Your task to perform on an android device: allow notifications from all sites in the chrome app Image 0: 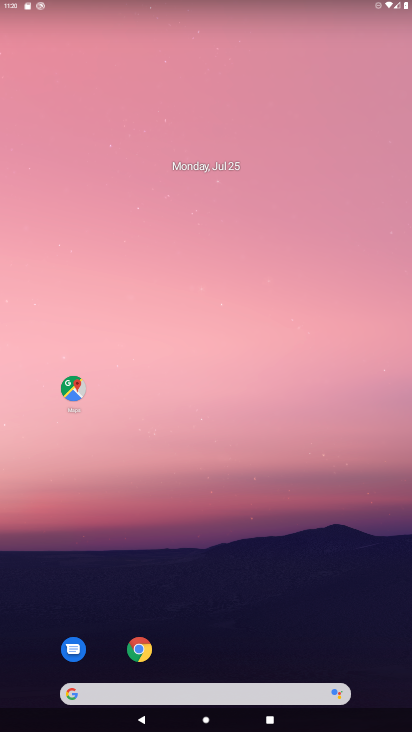
Step 0: click (137, 650)
Your task to perform on an android device: allow notifications from all sites in the chrome app Image 1: 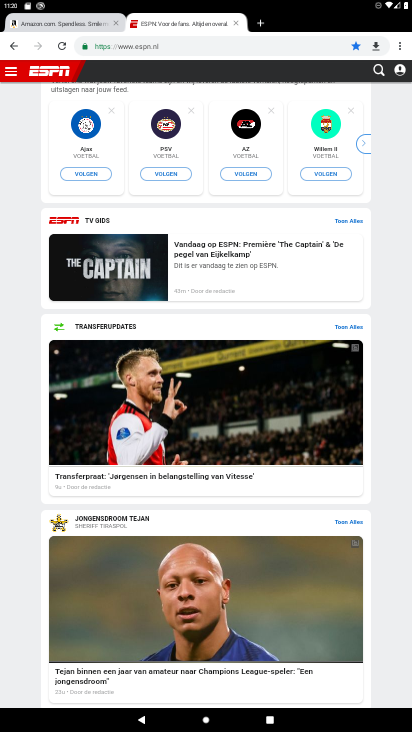
Step 1: click (398, 48)
Your task to perform on an android device: allow notifications from all sites in the chrome app Image 2: 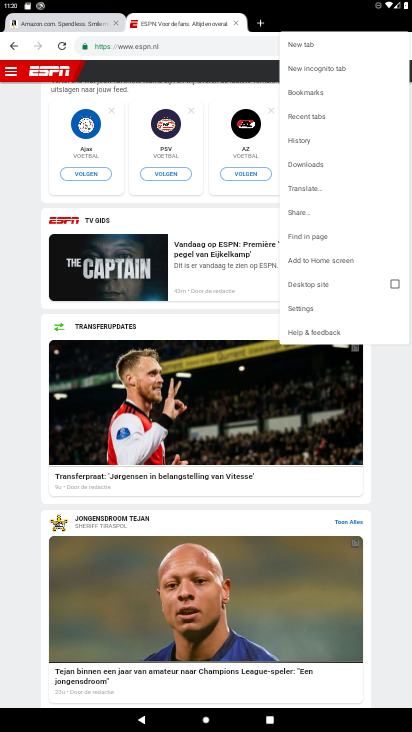
Step 2: click (294, 310)
Your task to perform on an android device: allow notifications from all sites in the chrome app Image 3: 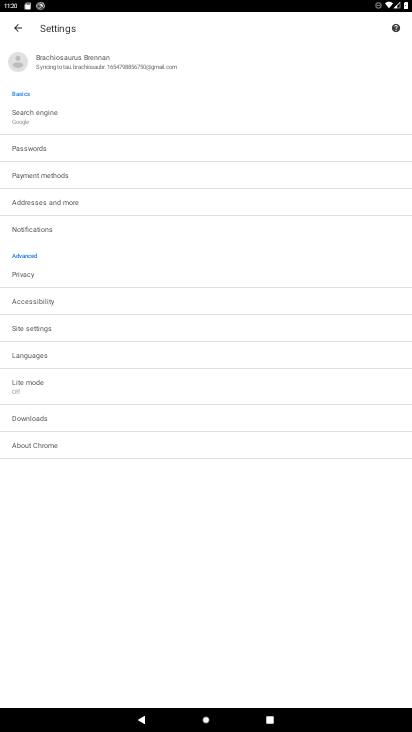
Step 3: click (37, 329)
Your task to perform on an android device: allow notifications from all sites in the chrome app Image 4: 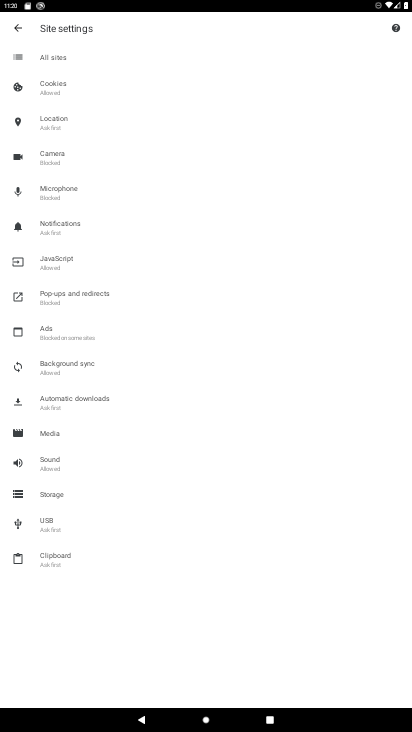
Step 4: click (56, 224)
Your task to perform on an android device: allow notifications from all sites in the chrome app Image 5: 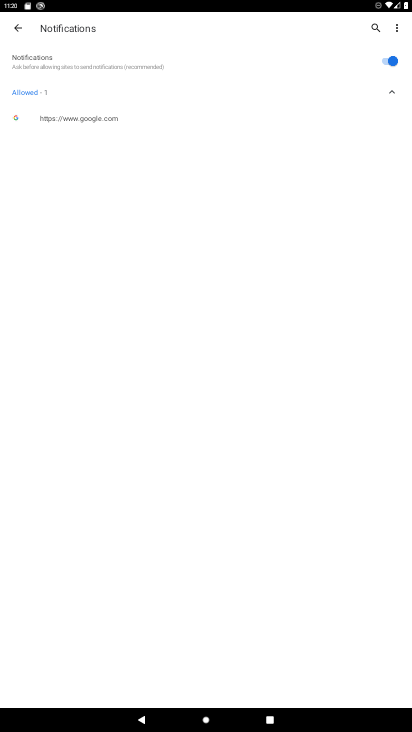
Step 5: task complete